Your task to perform on an android device: toggle sleep mode Image 0: 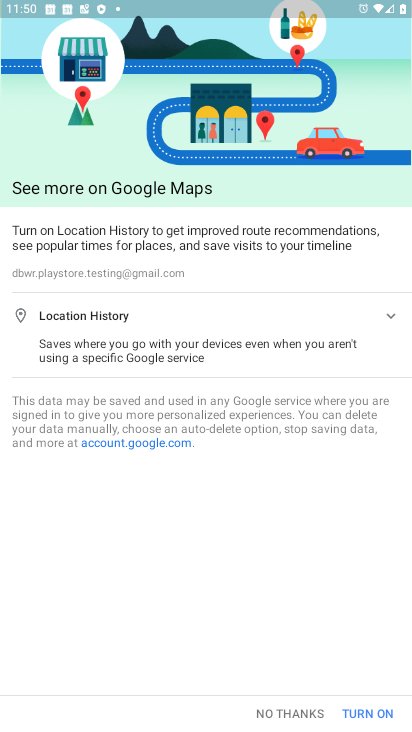
Step 0: press home button
Your task to perform on an android device: toggle sleep mode Image 1: 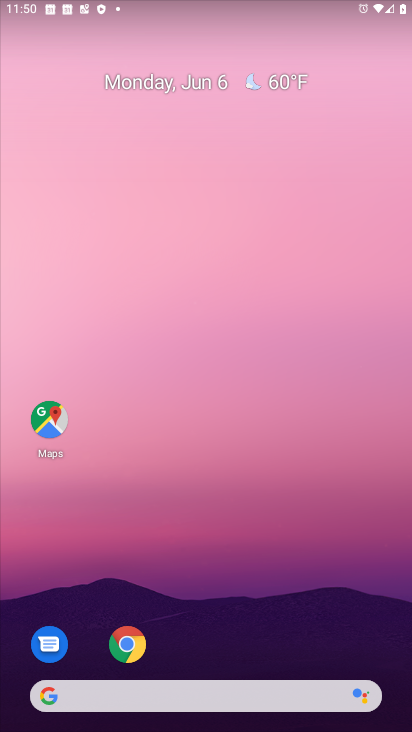
Step 1: task complete